Your task to perform on an android device: Open the Play Movies app and select the watchlist tab. Image 0: 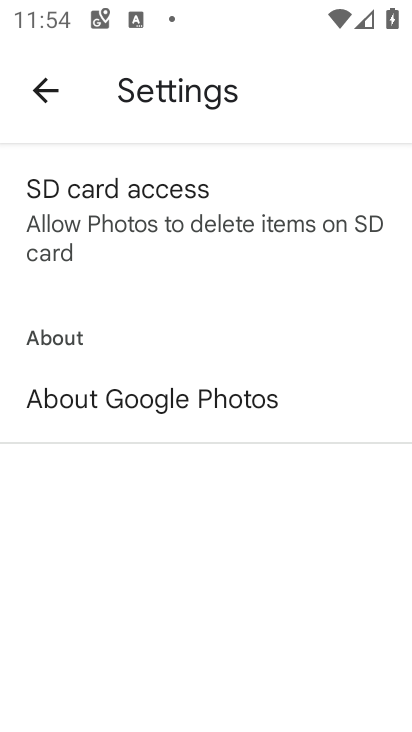
Step 0: press home button
Your task to perform on an android device: Open the Play Movies app and select the watchlist tab. Image 1: 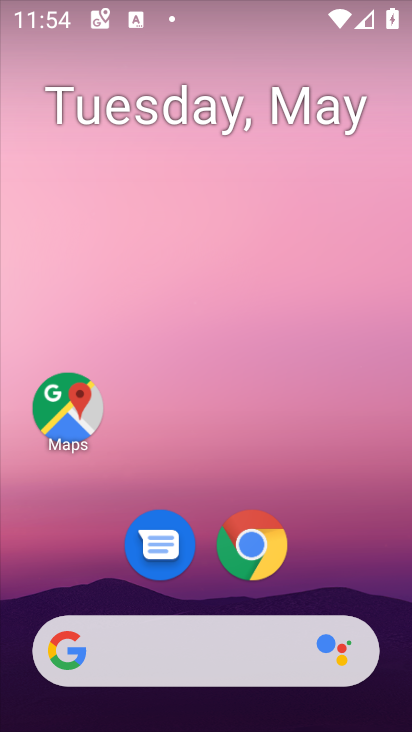
Step 1: drag from (196, 599) to (196, 133)
Your task to perform on an android device: Open the Play Movies app and select the watchlist tab. Image 2: 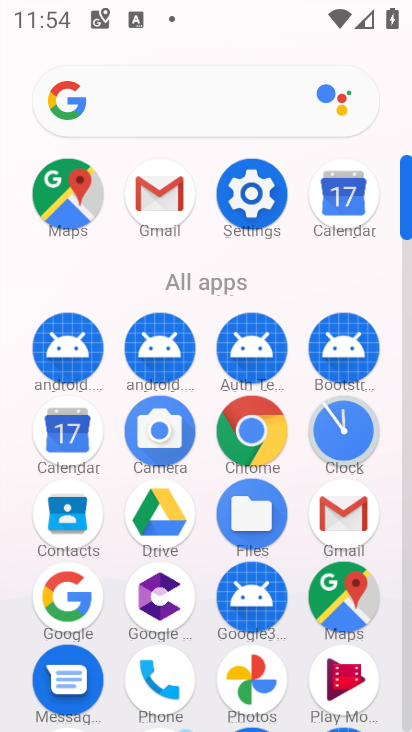
Step 2: drag from (204, 551) to (226, 202)
Your task to perform on an android device: Open the Play Movies app and select the watchlist tab. Image 3: 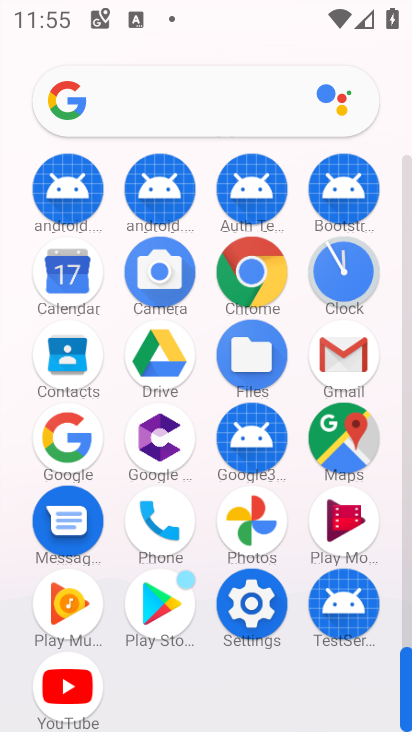
Step 3: click (346, 518)
Your task to perform on an android device: Open the Play Movies app and select the watchlist tab. Image 4: 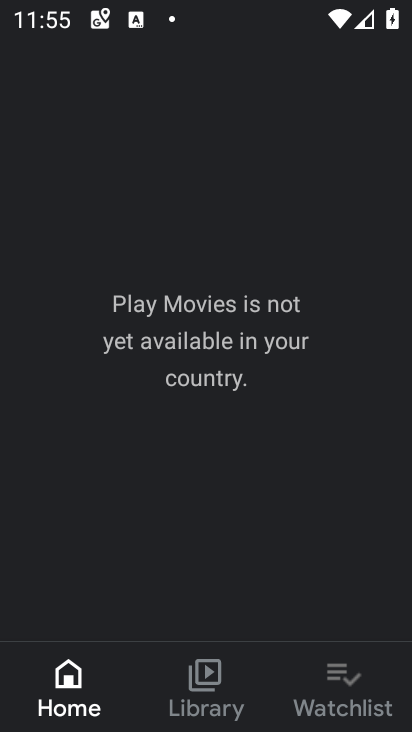
Step 4: click (343, 696)
Your task to perform on an android device: Open the Play Movies app and select the watchlist tab. Image 5: 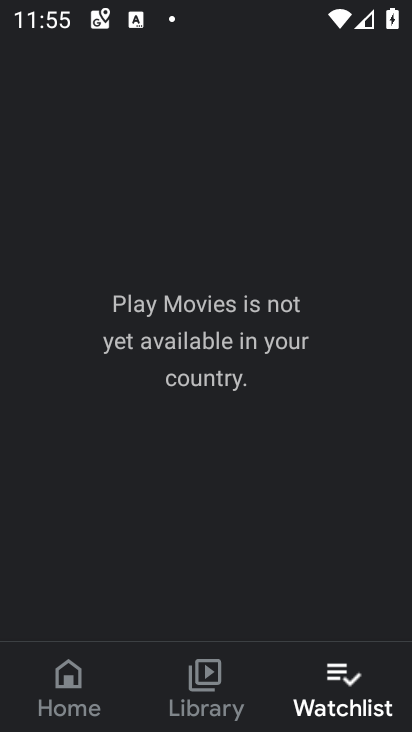
Step 5: task complete